Your task to perform on an android device: turn pop-ups on in chrome Image 0: 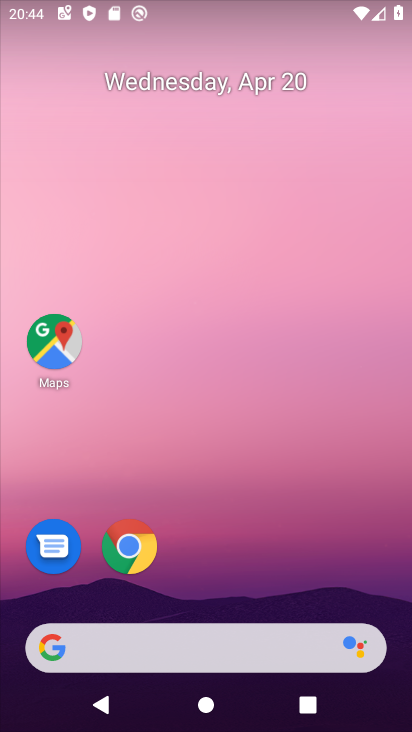
Step 0: drag from (303, 423) to (283, 50)
Your task to perform on an android device: turn pop-ups on in chrome Image 1: 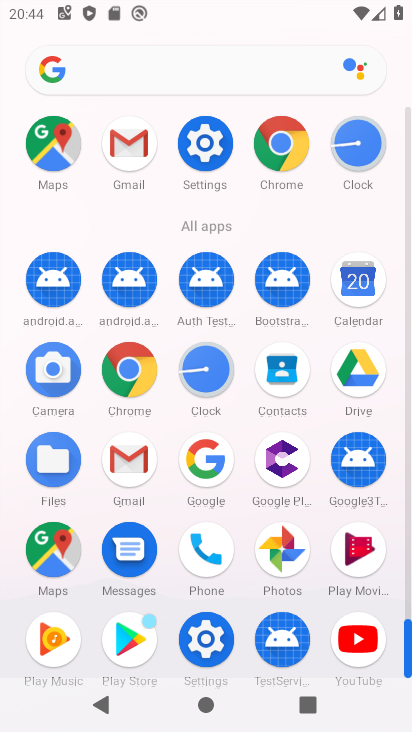
Step 1: click (308, 131)
Your task to perform on an android device: turn pop-ups on in chrome Image 2: 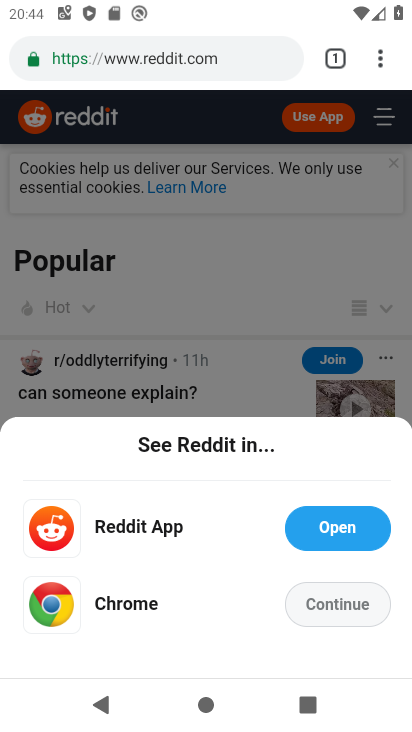
Step 2: click (380, 67)
Your task to perform on an android device: turn pop-ups on in chrome Image 3: 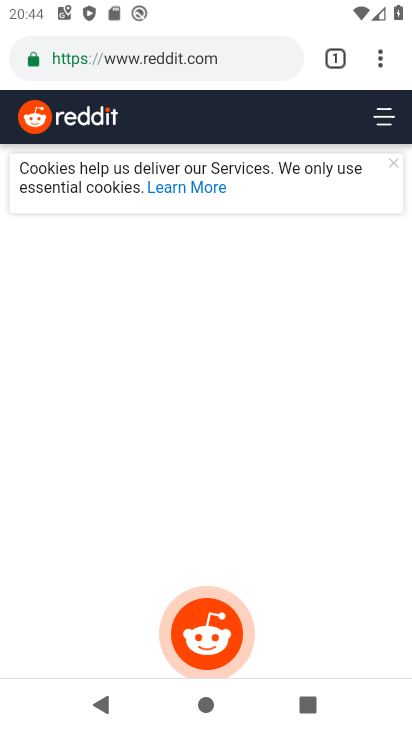
Step 3: click (380, 57)
Your task to perform on an android device: turn pop-ups on in chrome Image 4: 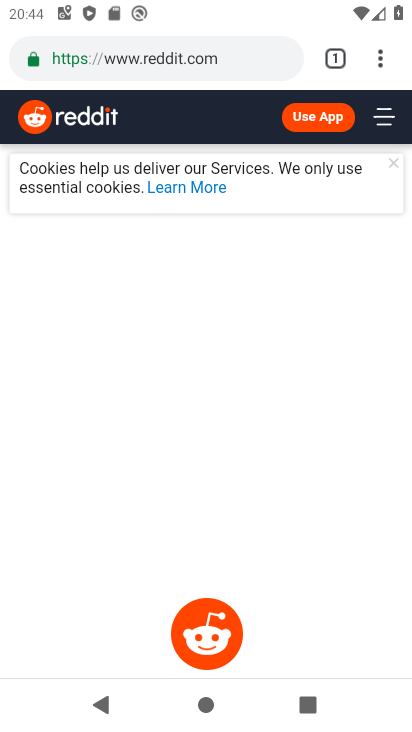
Step 4: click (379, 57)
Your task to perform on an android device: turn pop-ups on in chrome Image 5: 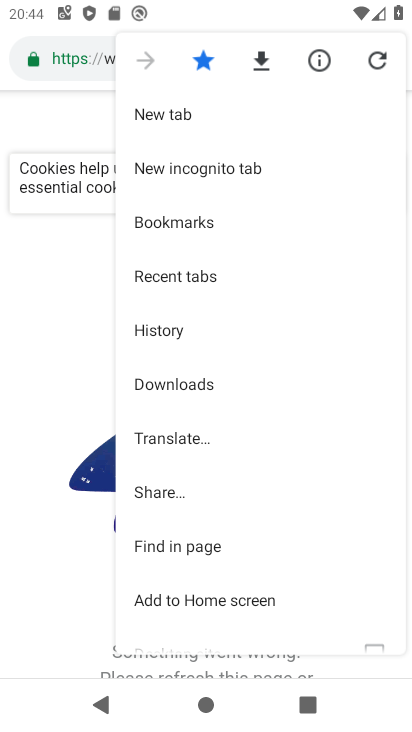
Step 5: drag from (260, 566) to (229, 238)
Your task to perform on an android device: turn pop-ups on in chrome Image 6: 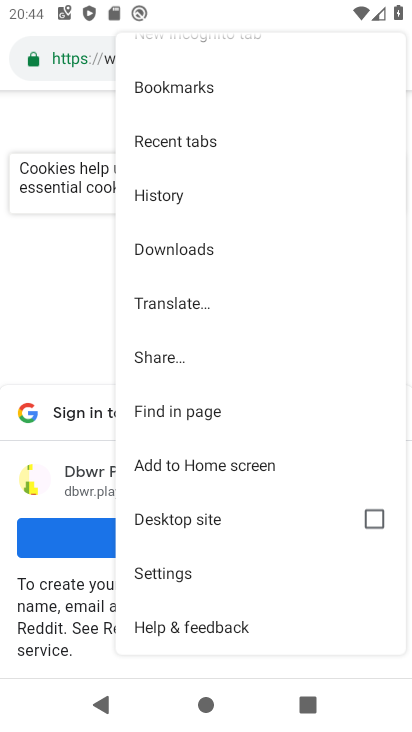
Step 6: click (210, 572)
Your task to perform on an android device: turn pop-ups on in chrome Image 7: 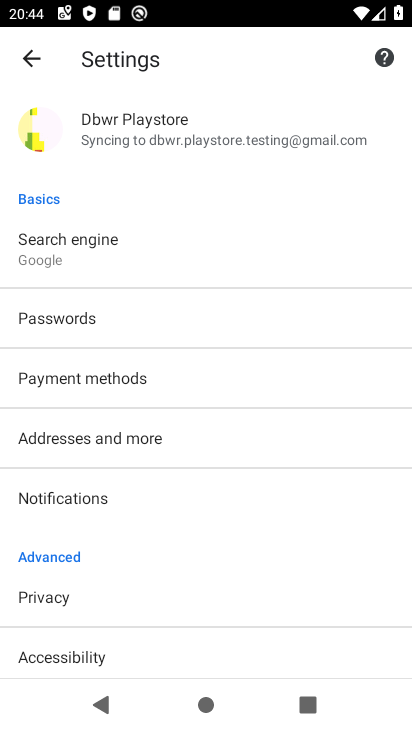
Step 7: drag from (181, 626) to (178, 204)
Your task to perform on an android device: turn pop-ups on in chrome Image 8: 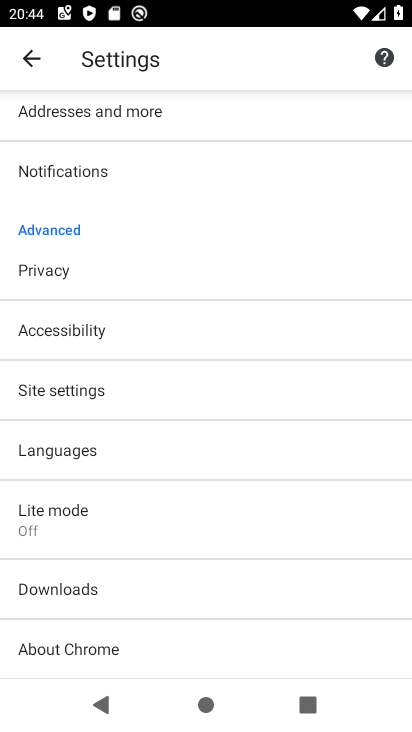
Step 8: click (92, 401)
Your task to perform on an android device: turn pop-ups on in chrome Image 9: 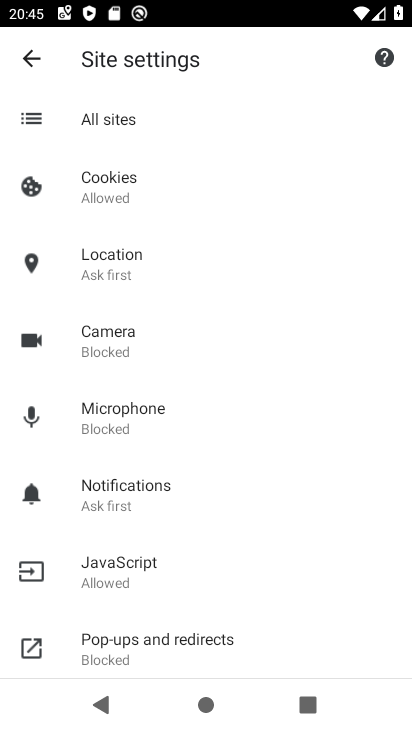
Step 9: click (149, 664)
Your task to perform on an android device: turn pop-ups on in chrome Image 10: 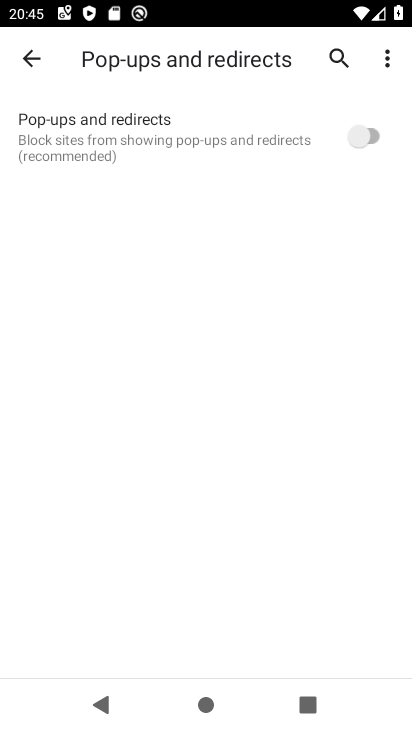
Step 10: click (352, 129)
Your task to perform on an android device: turn pop-ups on in chrome Image 11: 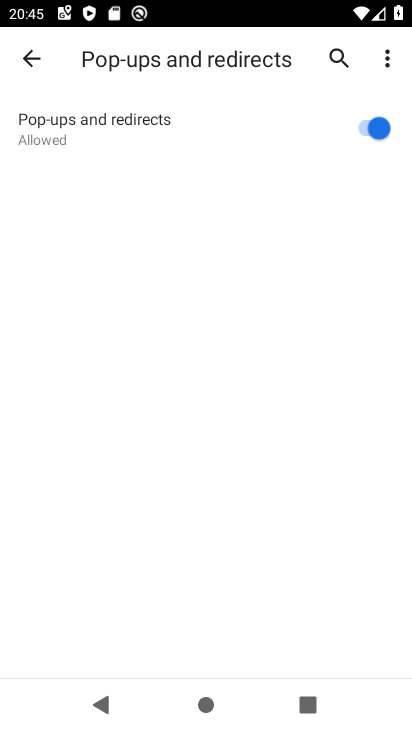
Step 11: task complete